Your task to perform on an android device: turn on notifications settings in the gmail app Image 0: 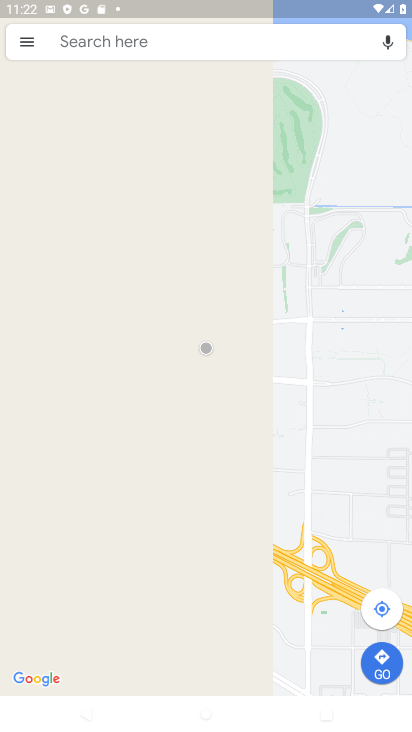
Step 0: press home button
Your task to perform on an android device: turn on notifications settings in the gmail app Image 1: 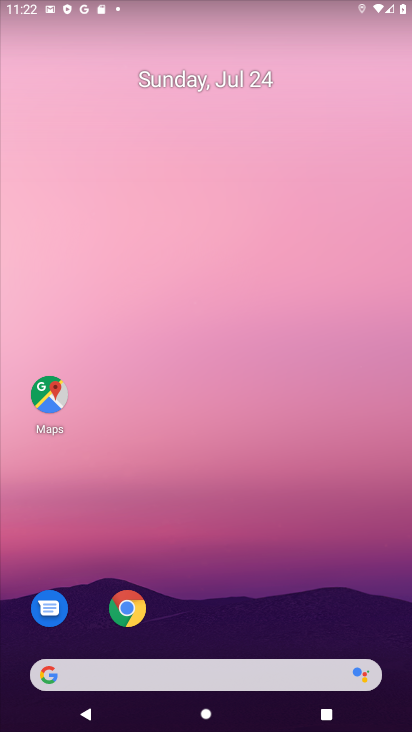
Step 1: drag from (264, 460) to (196, 115)
Your task to perform on an android device: turn on notifications settings in the gmail app Image 2: 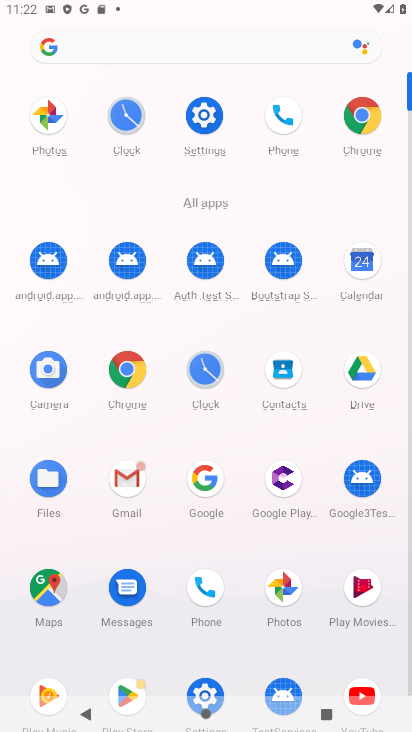
Step 2: click (134, 480)
Your task to perform on an android device: turn on notifications settings in the gmail app Image 3: 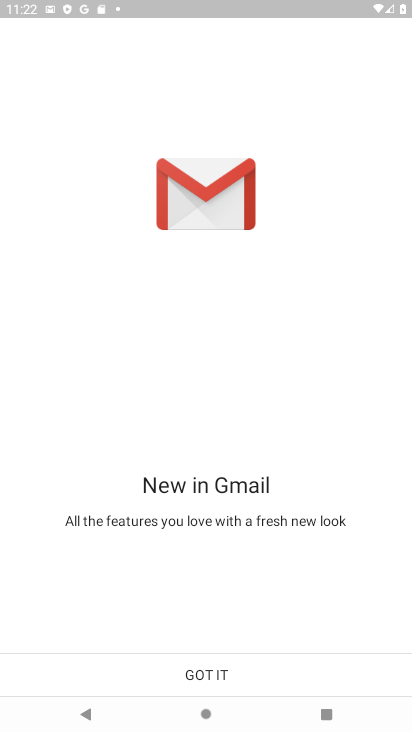
Step 3: click (201, 679)
Your task to perform on an android device: turn on notifications settings in the gmail app Image 4: 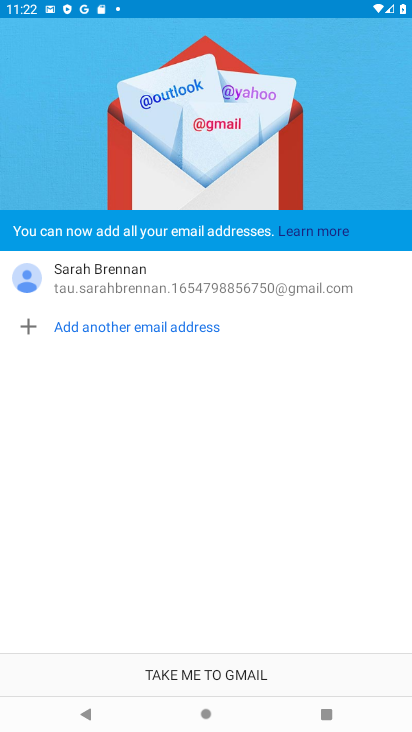
Step 4: click (201, 678)
Your task to perform on an android device: turn on notifications settings in the gmail app Image 5: 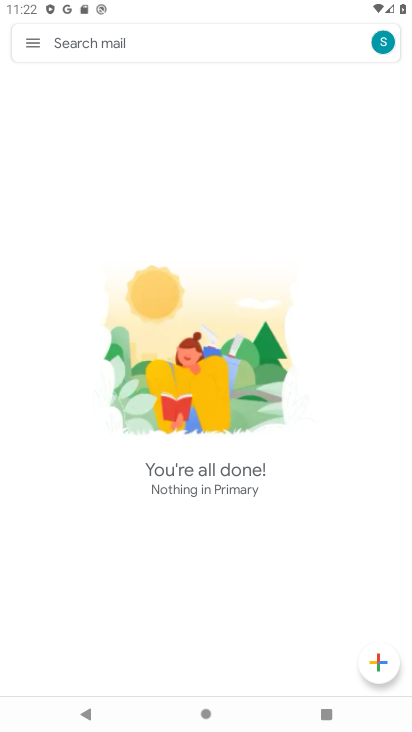
Step 5: click (37, 44)
Your task to perform on an android device: turn on notifications settings in the gmail app Image 6: 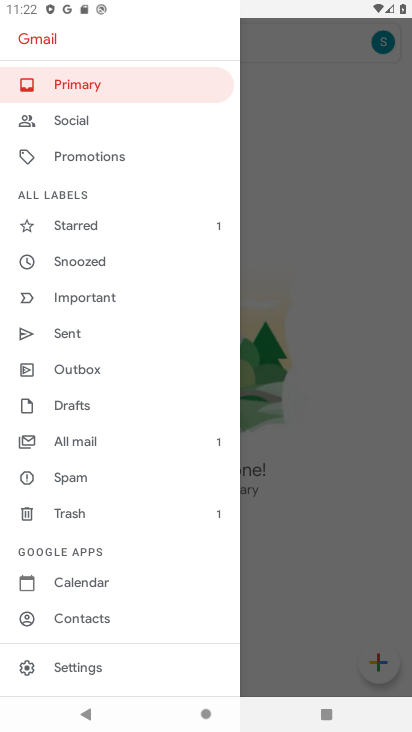
Step 6: click (0, 212)
Your task to perform on an android device: turn on notifications settings in the gmail app Image 7: 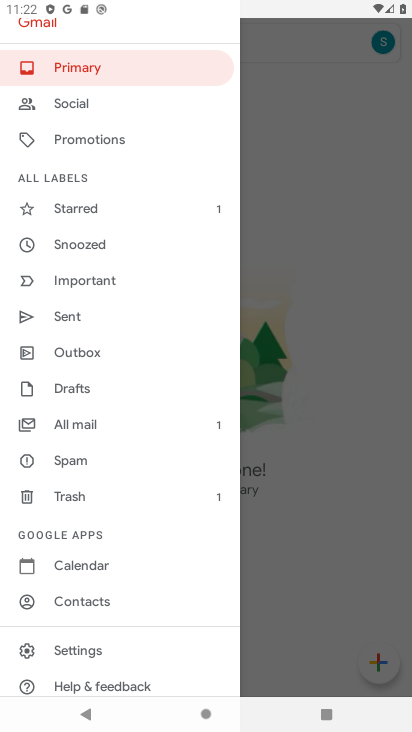
Step 7: click (85, 651)
Your task to perform on an android device: turn on notifications settings in the gmail app Image 8: 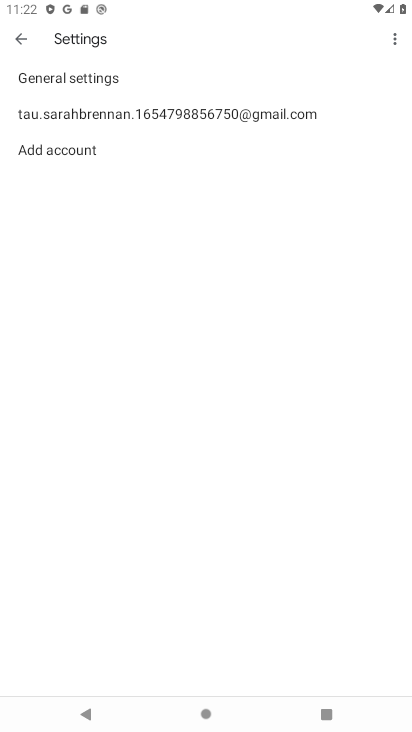
Step 8: click (25, 118)
Your task to perform on an android device: turn on notifications settings in the gmail app Image 9: 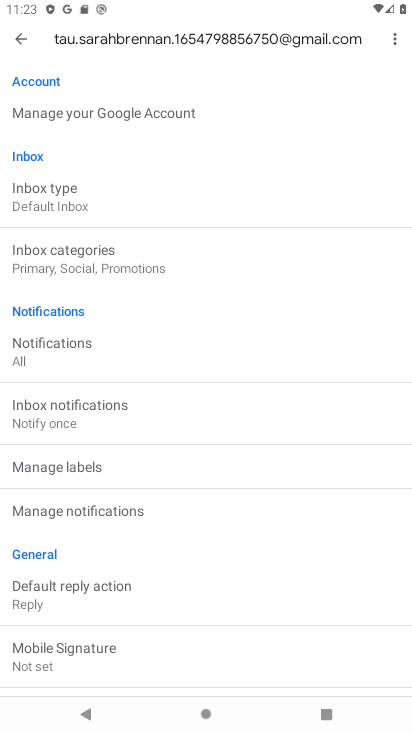
Step 9: click (76, 340)
Your task to perform on an android device: turn on notifications settings in the gmail app Image 10: 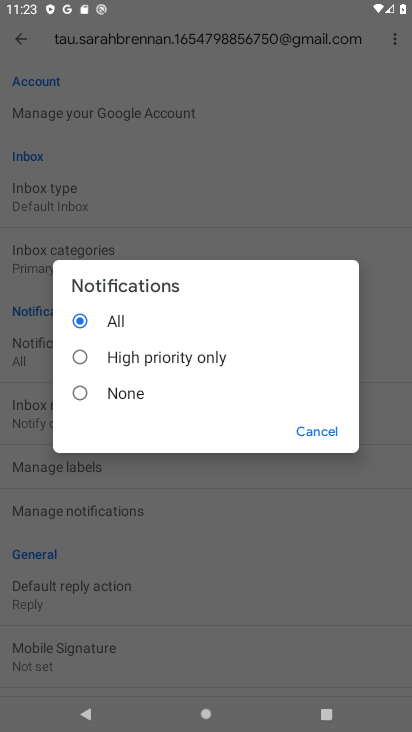
Step 10: task complete